Your task to perform on an android device: clear history in the chrome app Image 0: 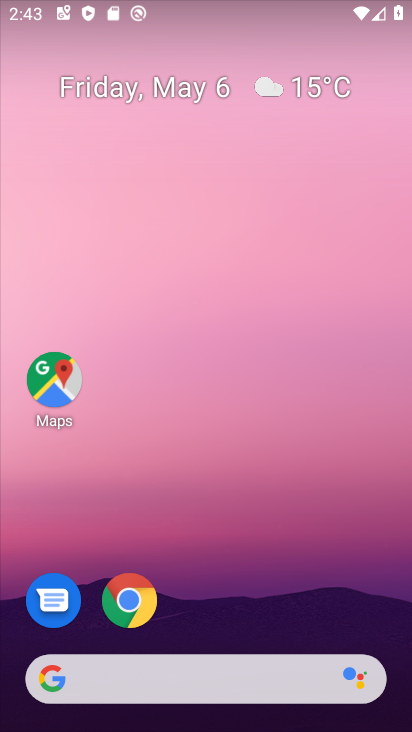
Step 0: drag from (270, 542) to (243, 9)
Your task to perform on an android device: clear history in the chrome app Image 1: 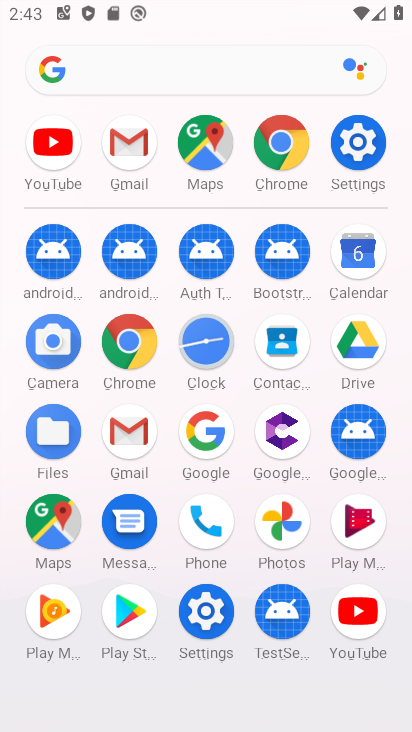
Step 1: drag from (13, 587) to (11, 255)
Your task to perform on an android device: clear history in the chrome app Image 2: 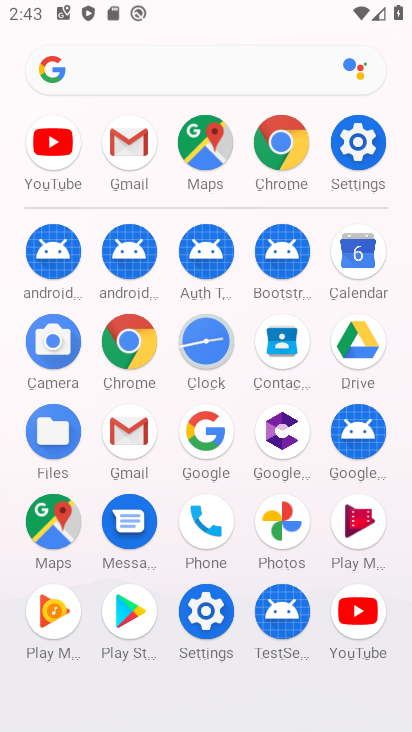
Step 2: click (126, 338)
Your task to perform on an android device: clear history in the chrome app Image 3: 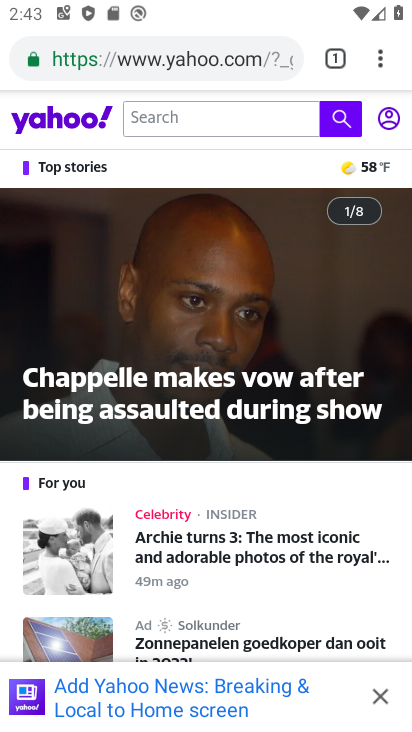
Step 3: drag from (377, 58) to (196, 339)
Your task to perform on an android device: clear history in the chrome app Image 4: 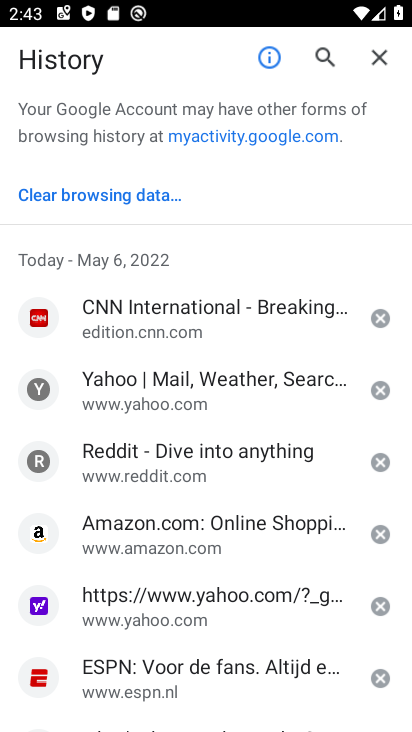
Step 4: click (124, 191)
Your task to perform on an android device: clear history in the chrome app Image 5: 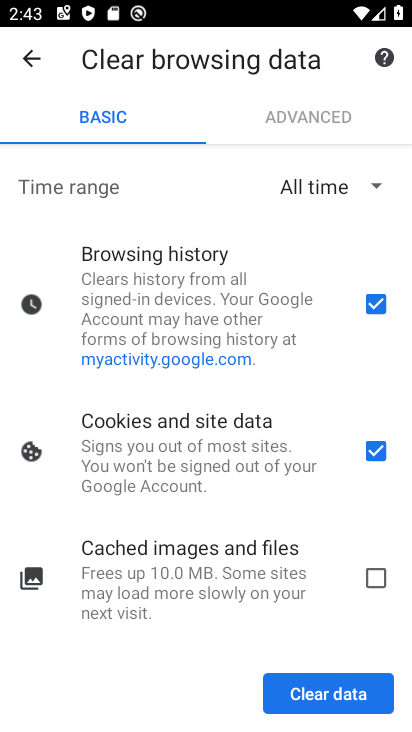
Step 5: click (348, 678)
Your task to perform on an android device: clear history in the chrome app Image 6: 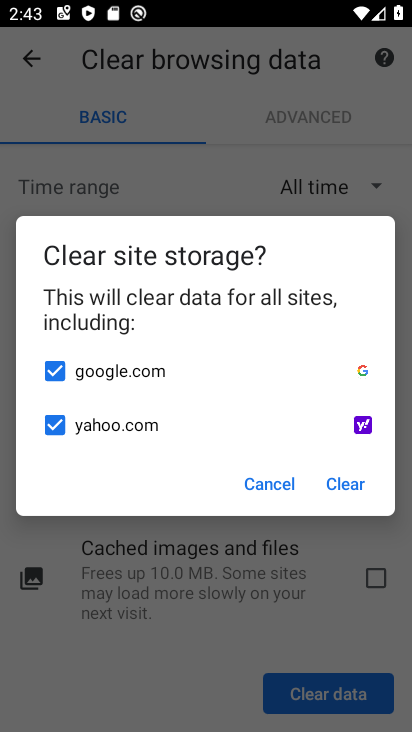
Step 6: click (351, 487)
Your task to perform on an android device: clear history in the chrome app Image 7: 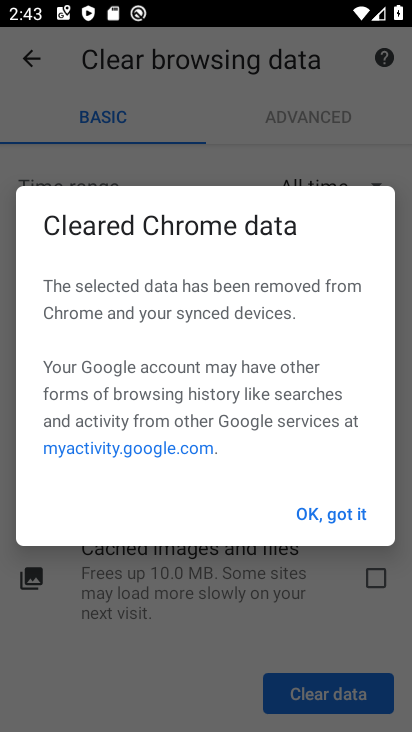
Step 7: click (346, 504)
Your task to perform on an android device: clear history in the chrome app Image 8: 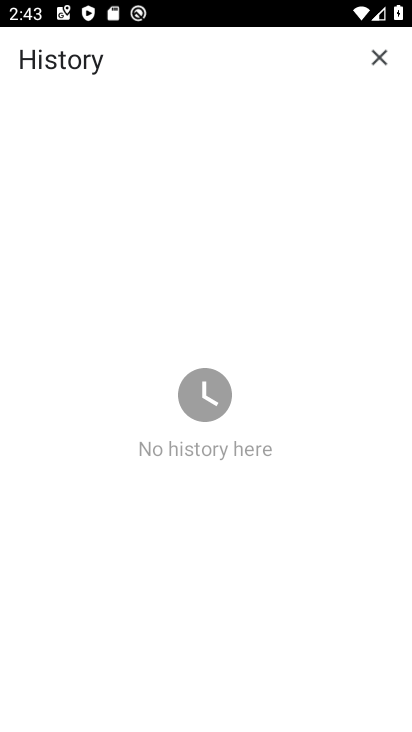
Step 8: task complete